Your task to perform on an android device: Search for the best pizza restaurants on Maps Image 0: 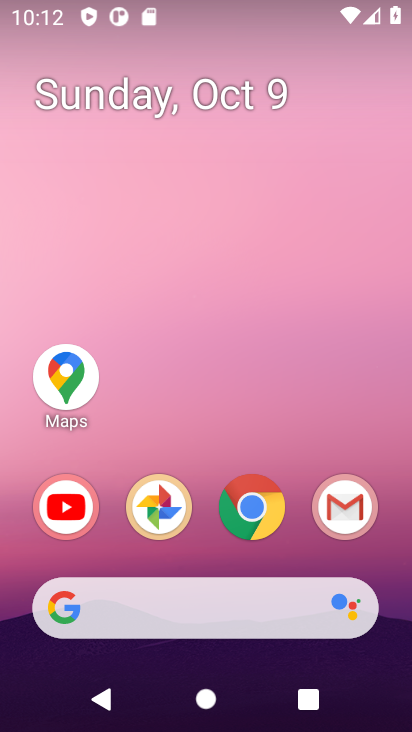
Step 0: click (210, 88)
Your task to perform on an android device: Search for the best pizza restaurants on Maps Image 1: 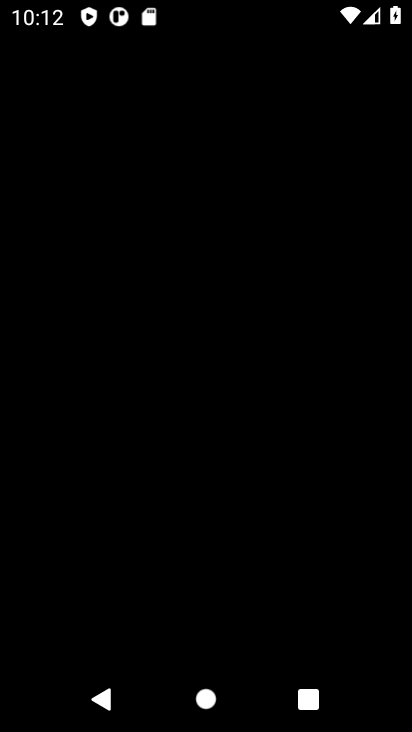
Step 1: press home button
Your task to perform on an android device: Search for the best pizza restaurants on Maps Image 2: 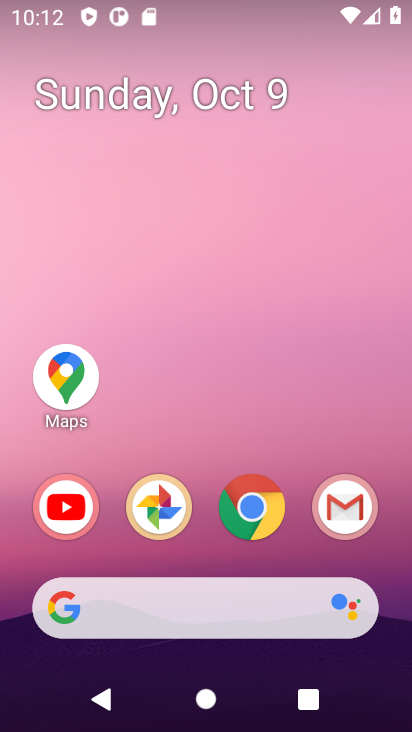
Step 2: drag from (201, 557) to (247, 167)
Your task to perform on an android device: Search for the best pizza restaurants on Maps Image 3: 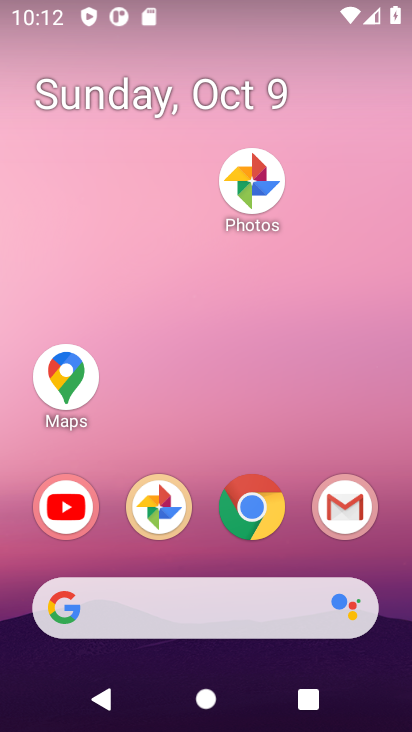
Step 3: drag from (207, 575) to (210, 181)
Your task to perform on an android device: Search for the best pizza restaurants on Maps Image 4: 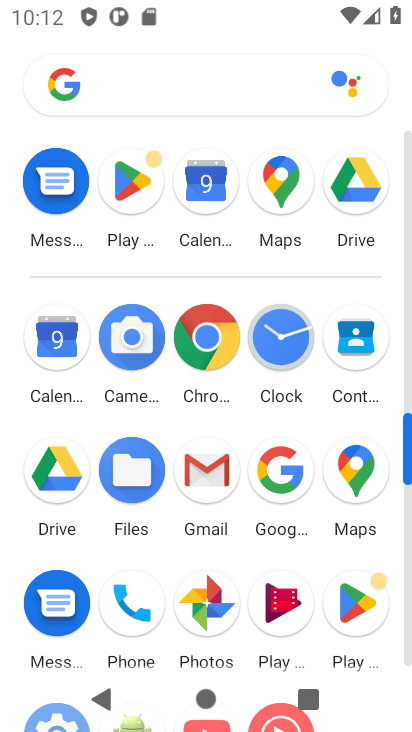
Step 4: click (280, 197)
Your task to perform on an android device: Search for the best pizza restaurants on Maps Image 5: 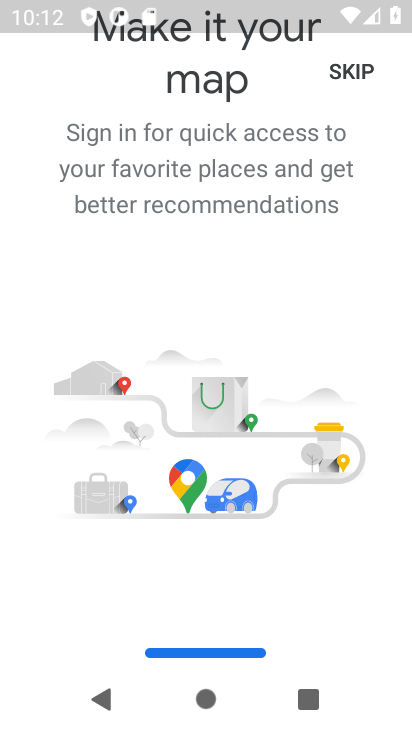
Step 5: click (363, 72)
Your task to perform on an android device: Search for the best pizza restaurants on Maps Image 6: 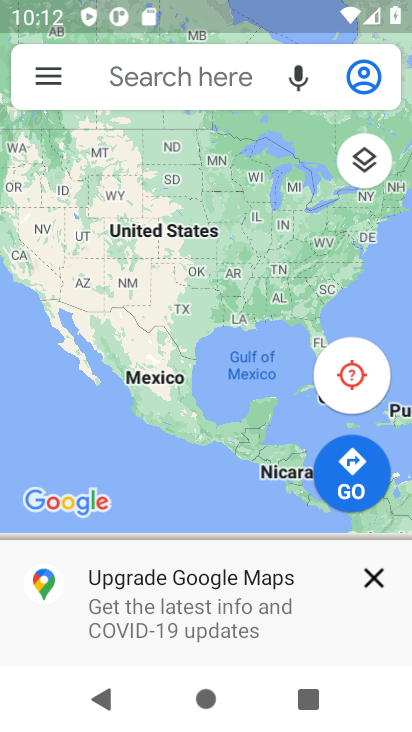
Step 6: click (234, 76)
Your task to perform on an android device: Search for the best pizza restaurants on Maps Image 7: 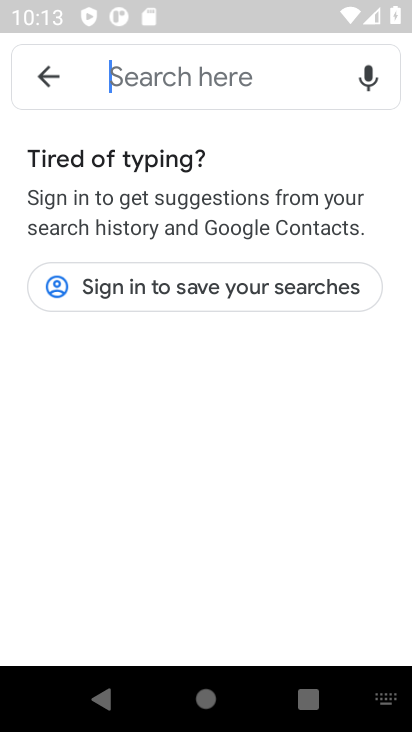
Step 7: type "best pizza restaurants"
Your task to perform on an android device: Search for the best pizza restaurants on Maps Image 8: 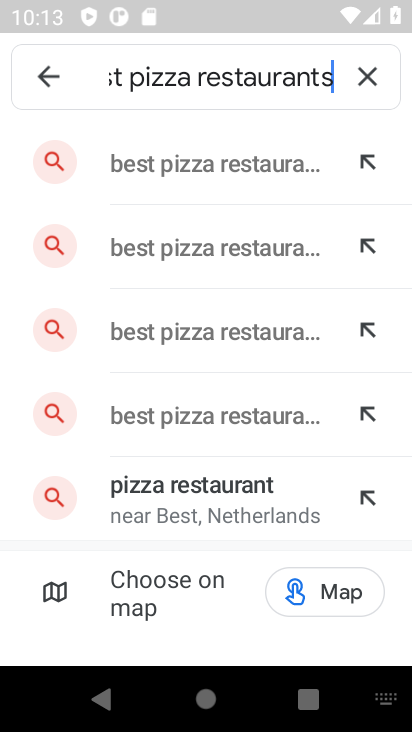
Step 8: press enter
Your task to perform on an android device: Search for the best pizza restaurants on Maps Image 9: 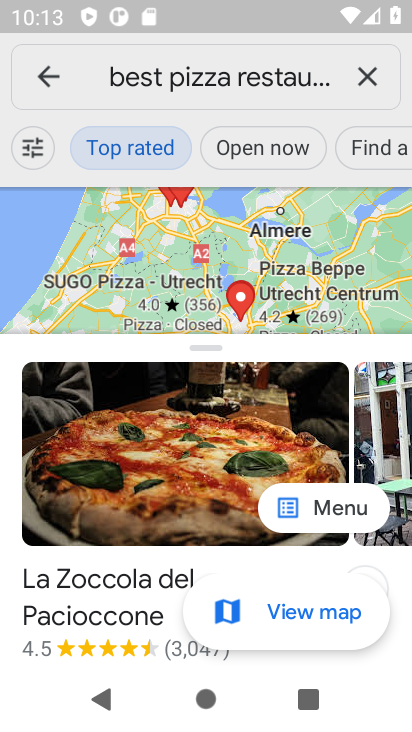
Step 9: task complete